Your task to perform on an android device: toggle sleep mode Image 0: 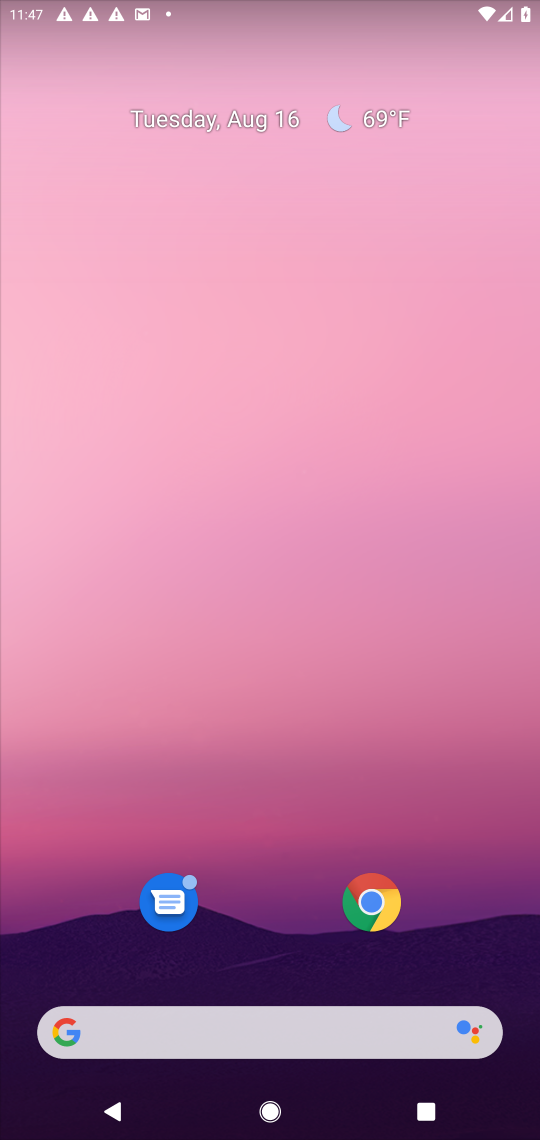
Step 0: press home button
Your task to perform on an android device: toggle sleep mode Image 1: 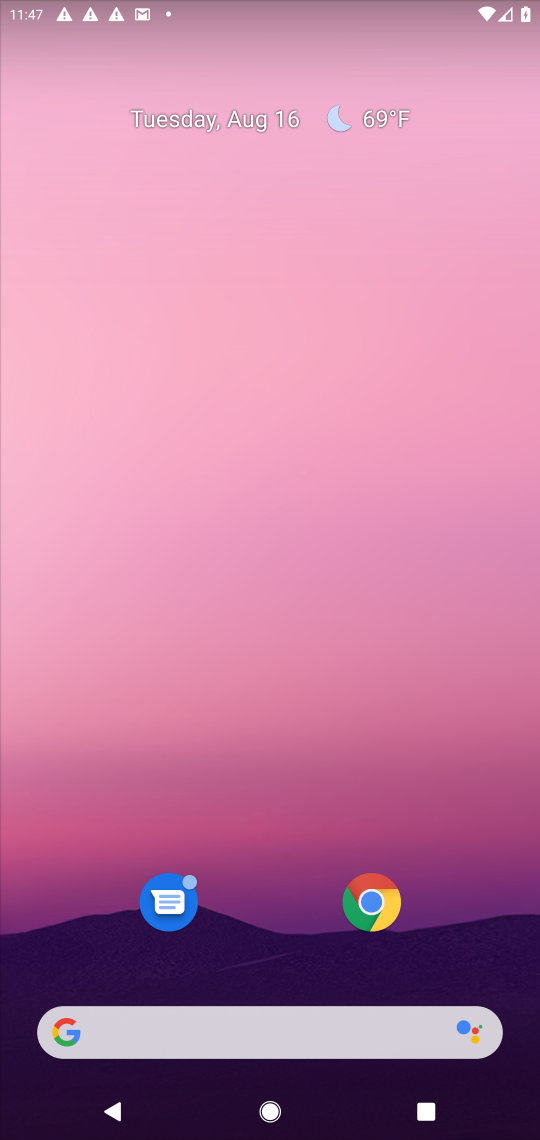
Step 1: drag from (255, 975) to (423, 2)
Your task to perform on an android device: toggle sleep mode Image 2: 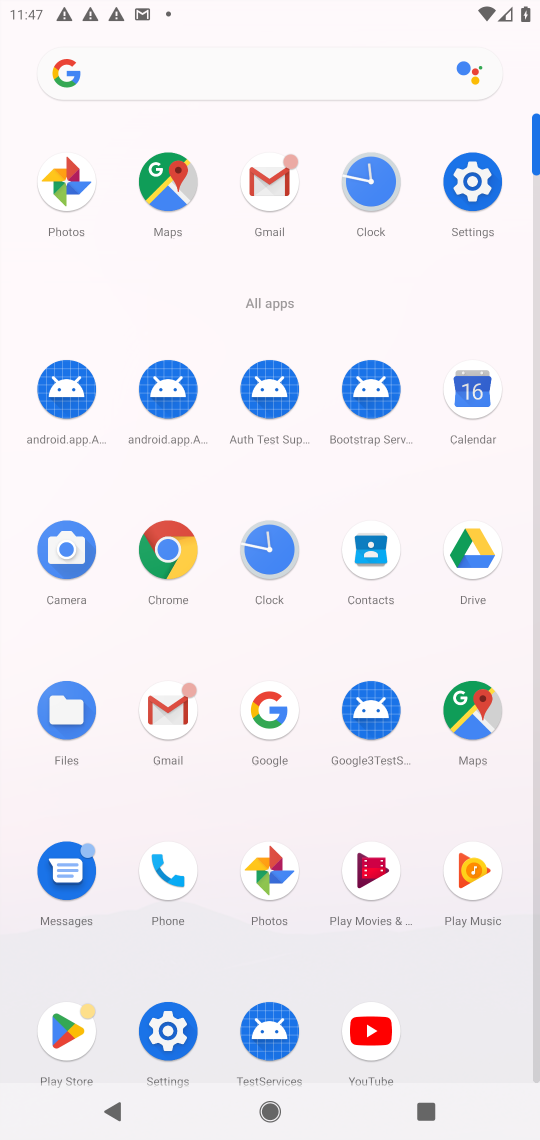
Step 2: click (467, 193)
Your task to perform on an android device: toggle sleep mode Image 3: 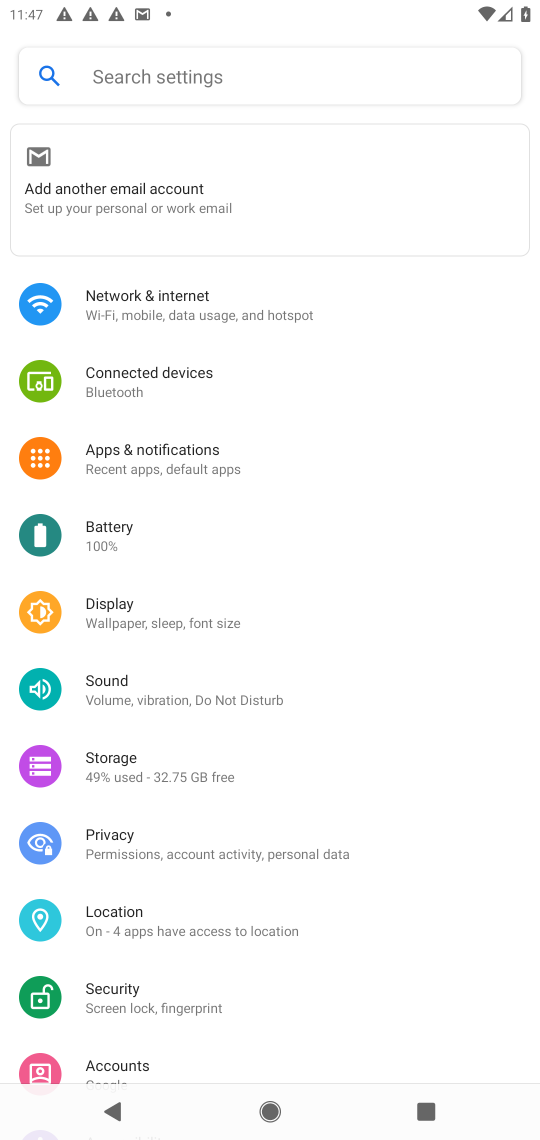
Step 3: click (235, 75)
Your task to perform on an android device: toggle sleep mode Image 4: 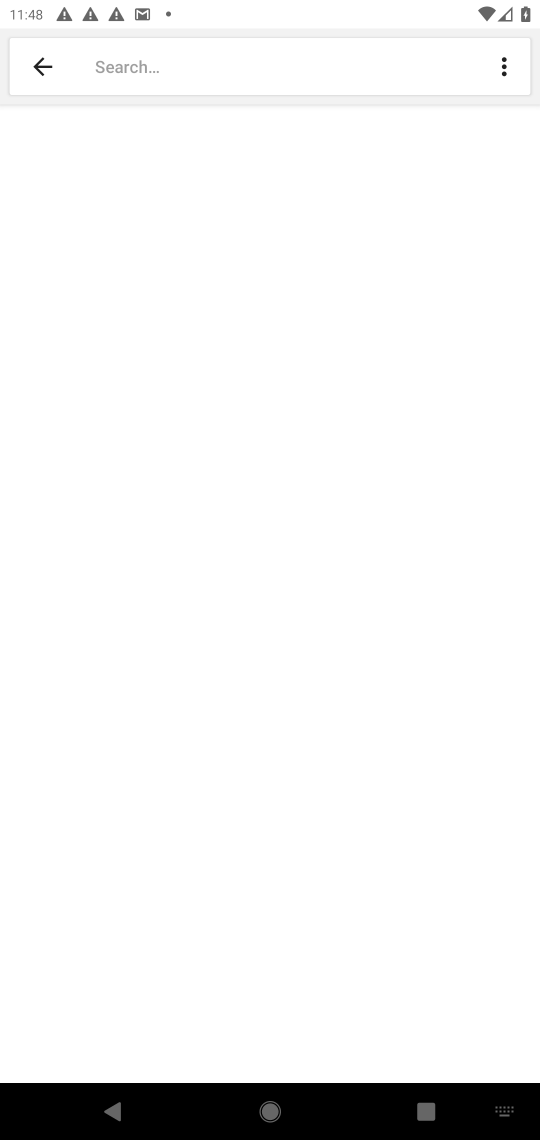
Step 4: type "sleep mode"
Your task to perform on an android device: toggle sleep mode Image 5: 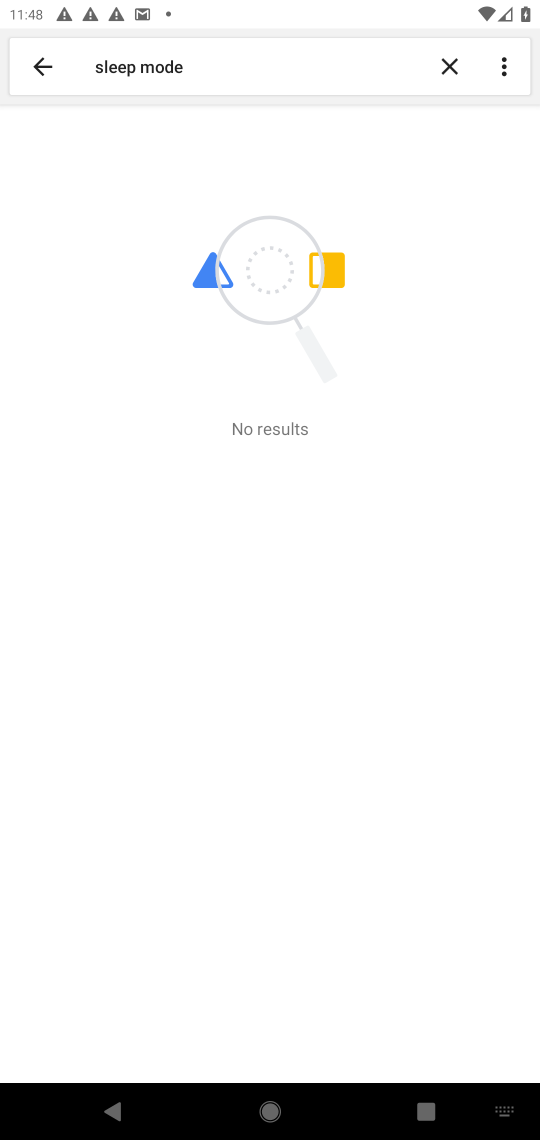
Step 5: task complete